Your task to perform on an android device: set an alarm Image 0: 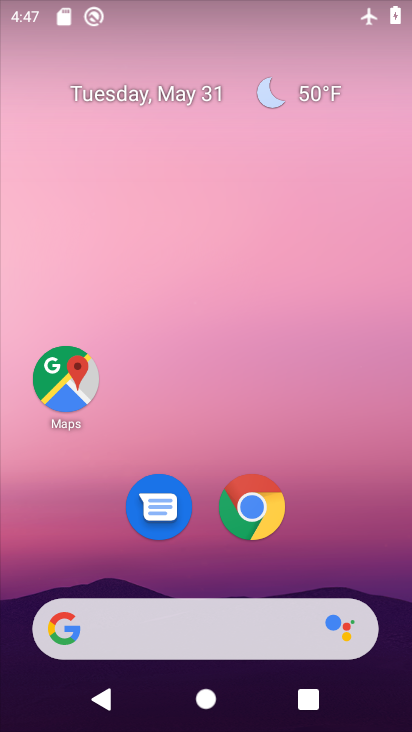
Step 0: drag from (323, 532) to (372, 44)
Your task to perform on an android device: set an alarm Image 1: 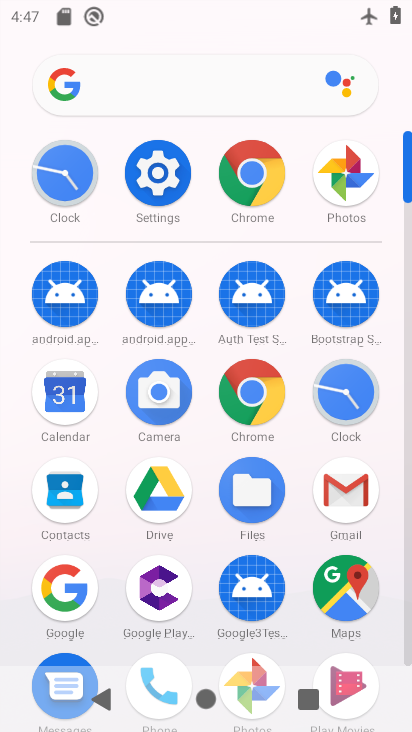
Step 1: click (346, 382)
Your task to perform on an android device: set an alarm Image 2: 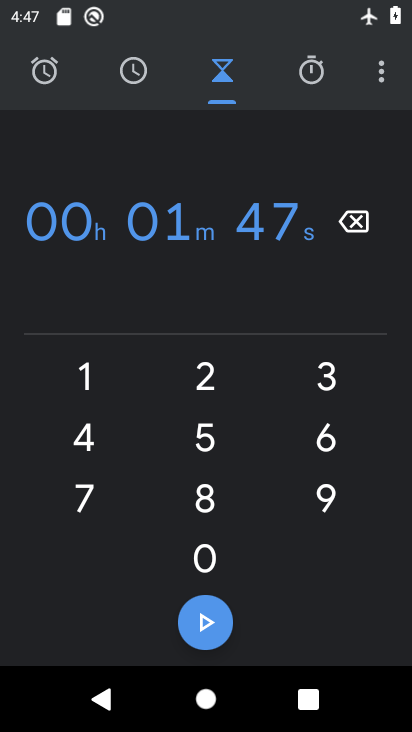
Step 2: click (40, 56)
Your task to perform on an android device: set an alarm Image 3: 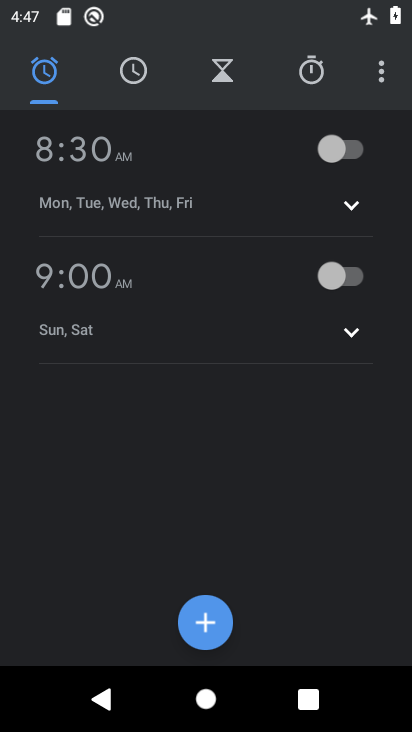
Step 3: click (207, 619)
Your task to perform on an android device: set an alarm Image 4: 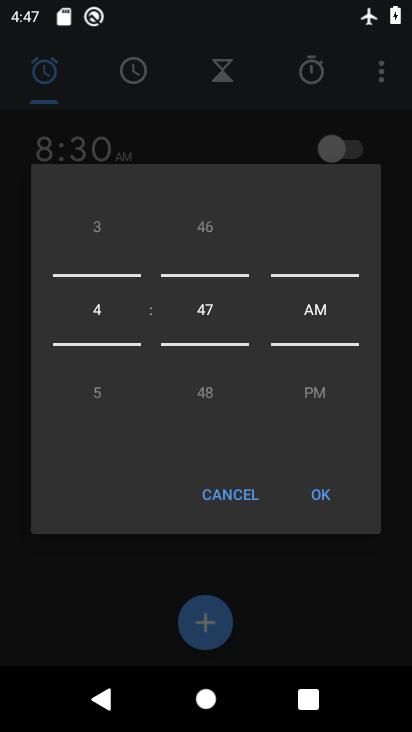
Step 4: drag from (209, 293) to (197, 392)
Your task to perform on an android device: set an alarm Image 5: 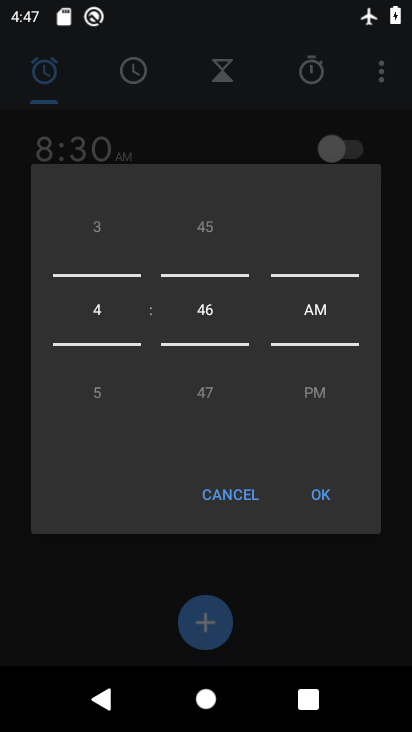
Step 5: drag from (206, 271) to (212, 384)
Your task to perform on an android device: set an alarm Image 6: 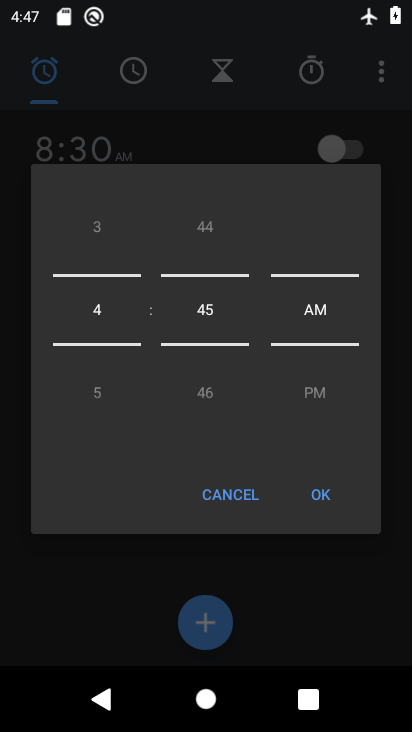
Step 6: click (318, 390)
Your task to perform on an android device: set an alarm Image 7: 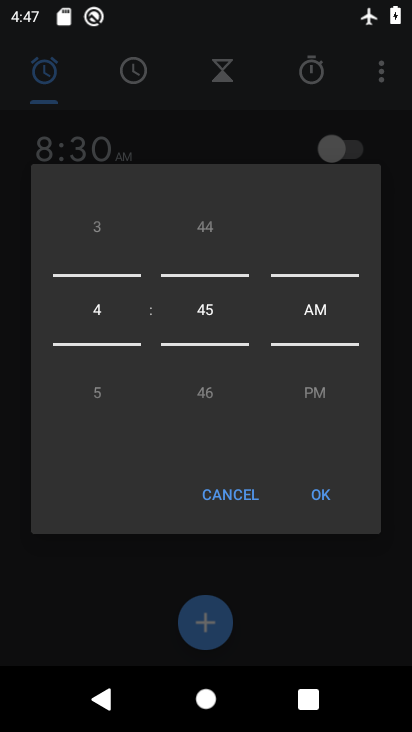
Step 7: drag from (316, 390) to (333, 273)
Your task to perform on an android device: set an alarm Image 8: 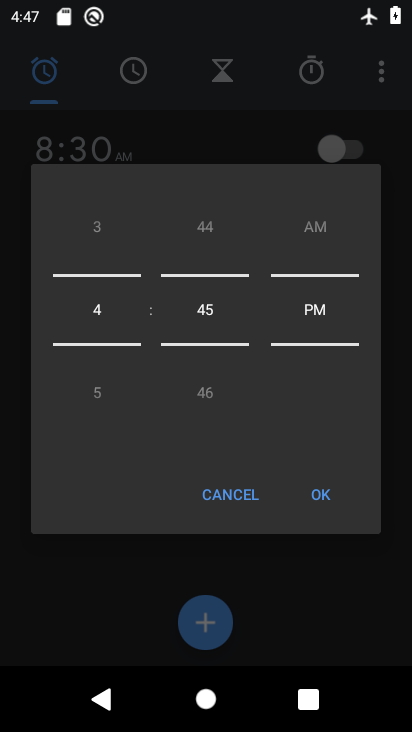
Step 8: click (315, 493)
Your task to perform on an android device: set an alarm Image 9: 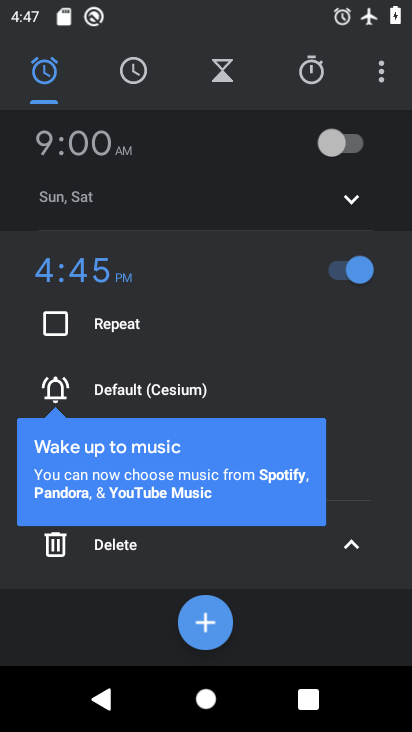
Step 9: task complete